Your task to perform on an android device: Is it going to rain tomorrow? Image 0: 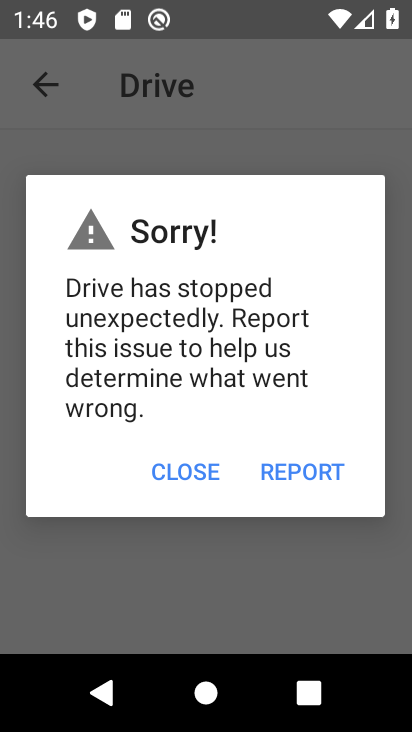
Step 0: press home button
Your task to perform on an android device: Is it going to rain tomorrow? Image 1: 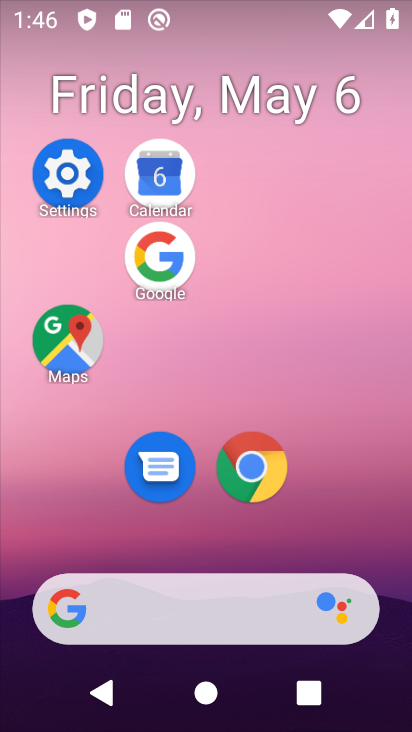
Step 1: click (178, 258)
Your task to perform on an android device: Is it going to rain tomorrow? Image 2: 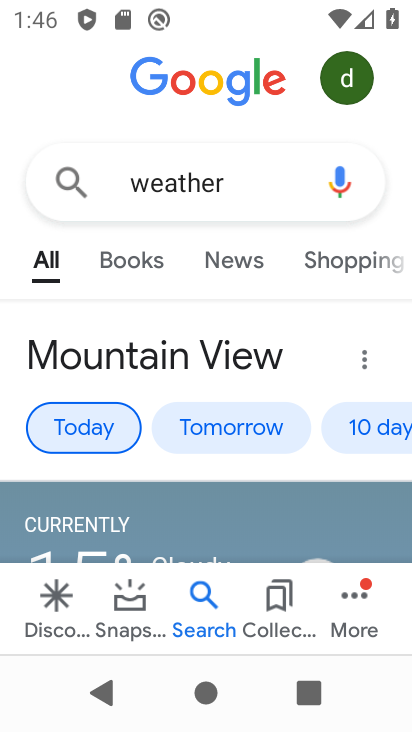
Step 2: click (227, 431)
Your task to perform on an android device: Is it going to rain tomorrow? Image 3: 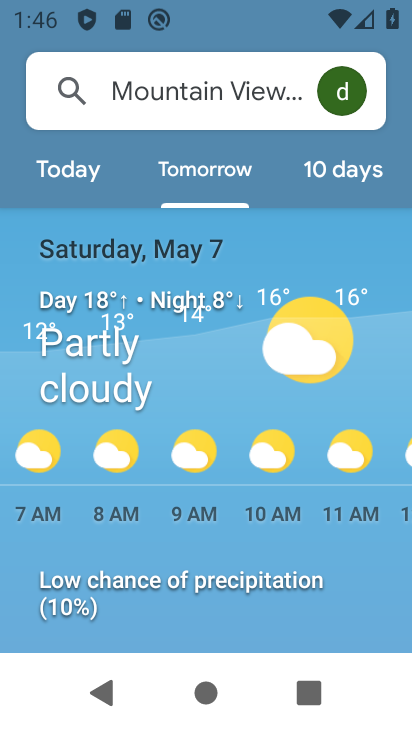
Step 3: task complete